Your task to perform on an android device: Search for sushi restaurants on Maps Image 0: 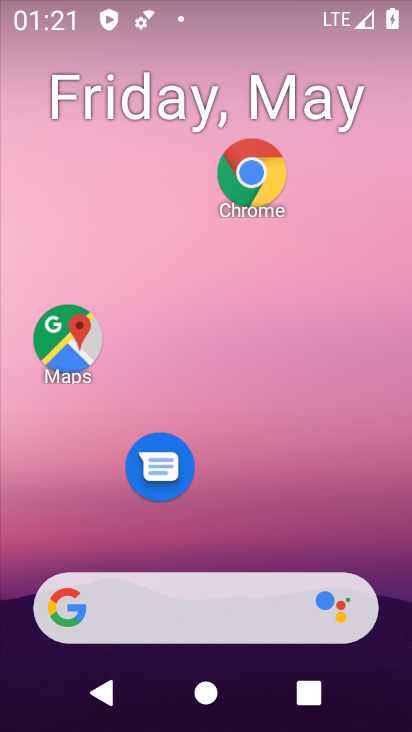
Step 0: press home button
Your task to perform on an android device: Search for sushi restaurants on Maps Image 1: 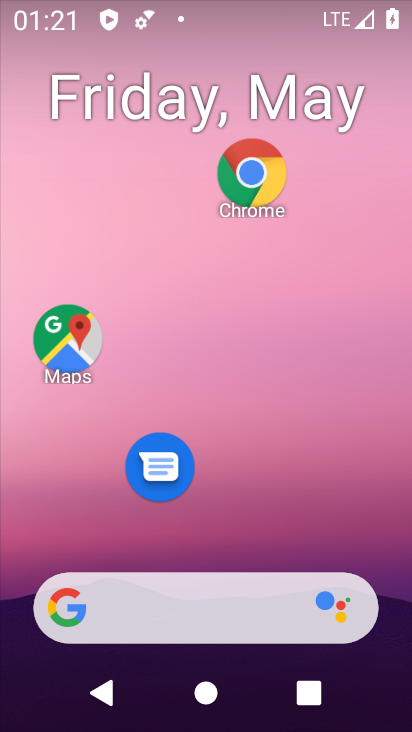
Step 1: drag from (255, 654) to (240, 124)
Your task to perform on an android device: Search for sushi restaurants on Maps Image 2: 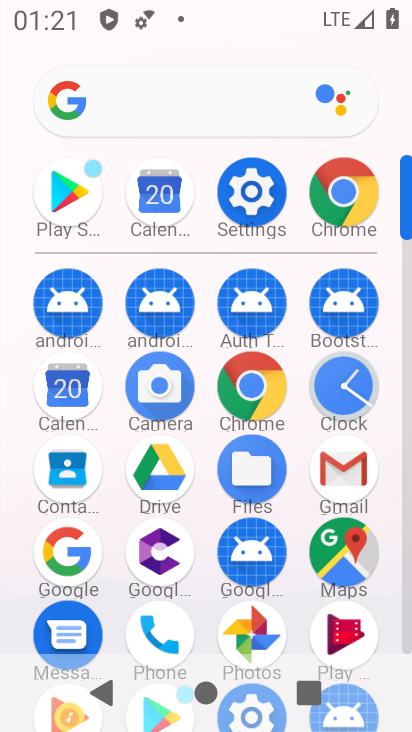
Step 2: click (333, 567)
Your task to perform on an android device: Search for sushi restaurants on Maps Image 3: 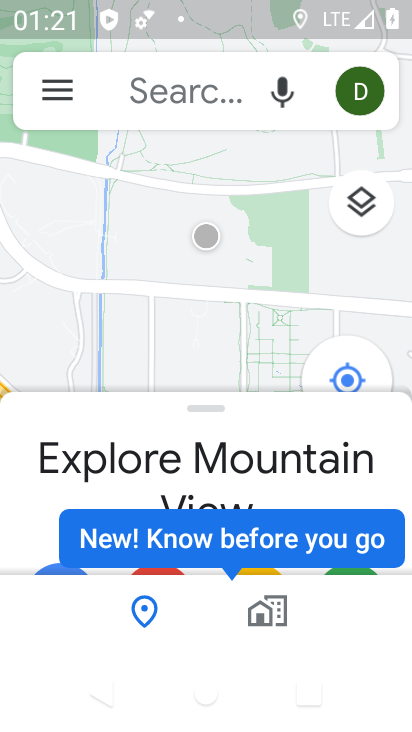
Step 3: click (158, 83)
Your task to perform on an android device: Search for sushi restaurants on Maps Image 4: 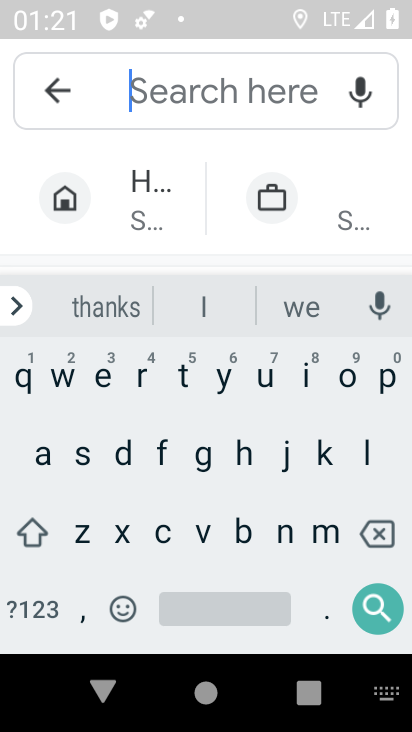
Step 4: click (78, 454)
Your task to perform on an android device: Search for sushi restaurants on Maps Image 5: 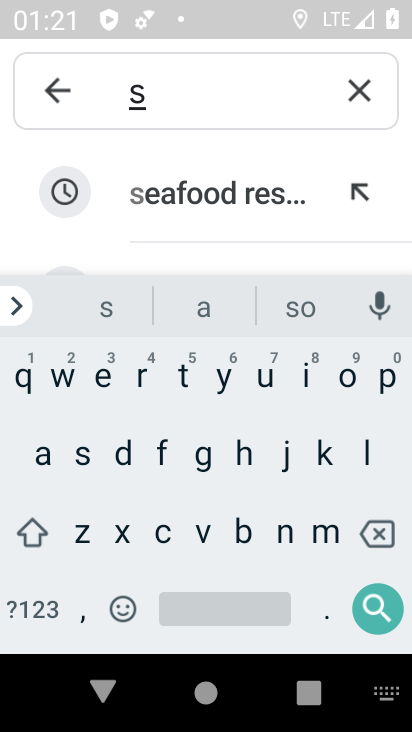
Step 5: click (264, 375)
Your task to perform on an android device: Search for sushi restaurants on Maps Image 6: 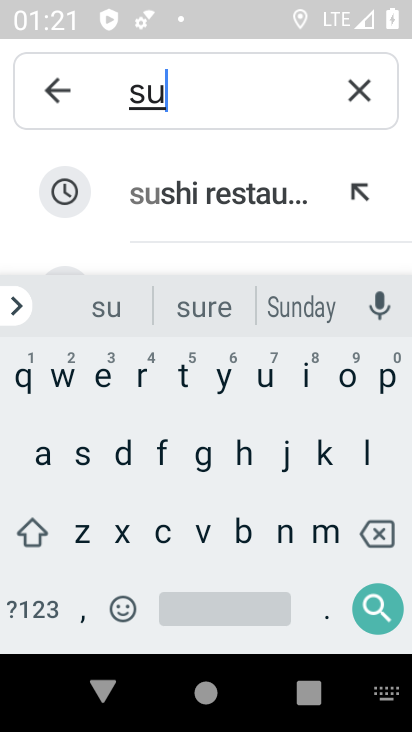
Step 6: click (217, 200)
Your task to perform on an android device: Search for sushi restaurants on Maps Image 7: 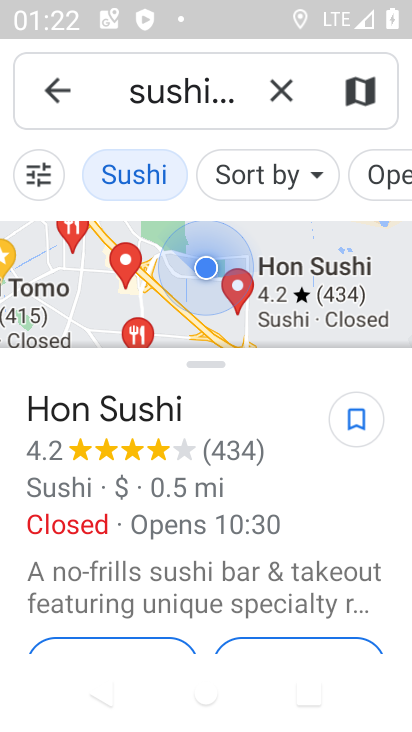
Step 7: click (178, 317)
Your task to perform on an android device: Search for sushi restaurants on Maps Image 8: 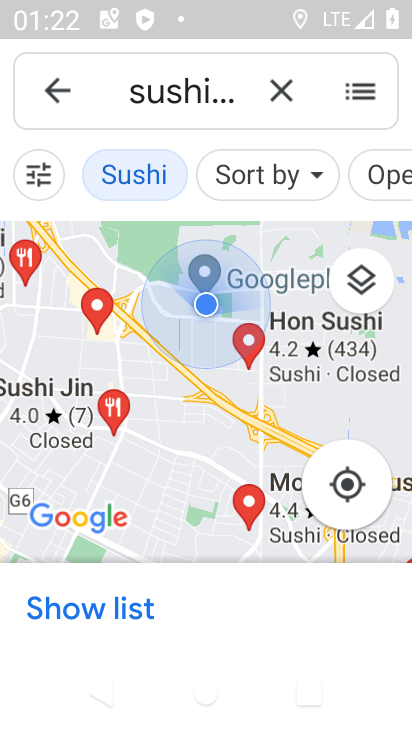
Step 8: task complete